Your task to perform on an android device: turn on the 24-hour format for clock Image 0: 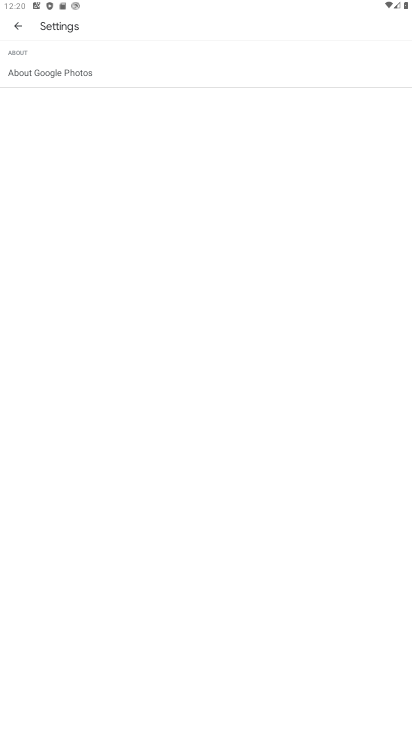
Step 0: press home button
Your task to perform on an android device: turn on the 24-hour format for clock Image 1: 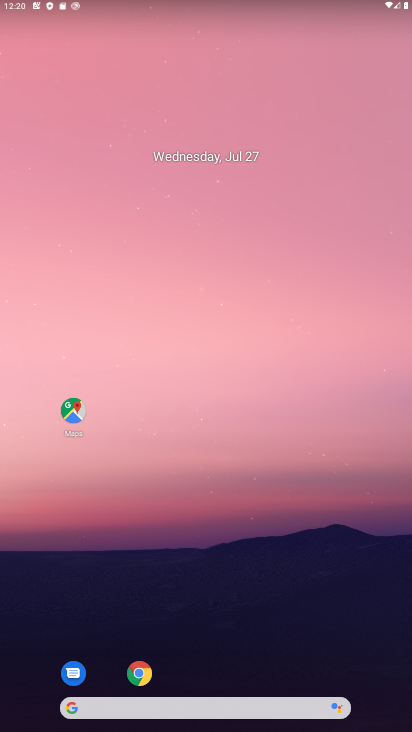
Step 1: drag from (266, 556) to (218, 13)
Your task to perform on an android device: turn on the 24-hour format for clock Image 2: 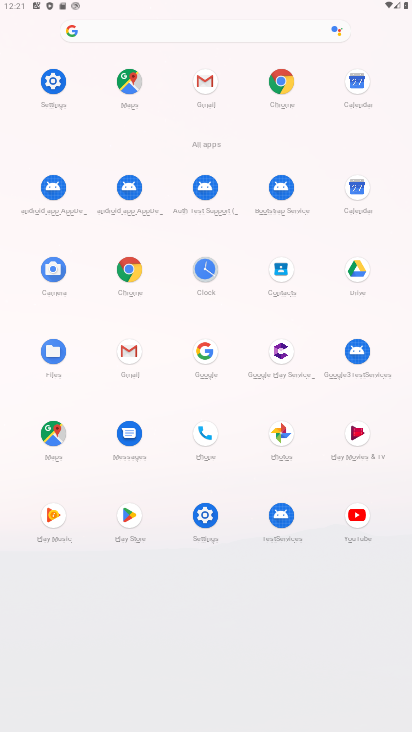
Step 2: click (207, 268)
Your task to perform on an android device: turn on the 24-hour format for clock Image 3: 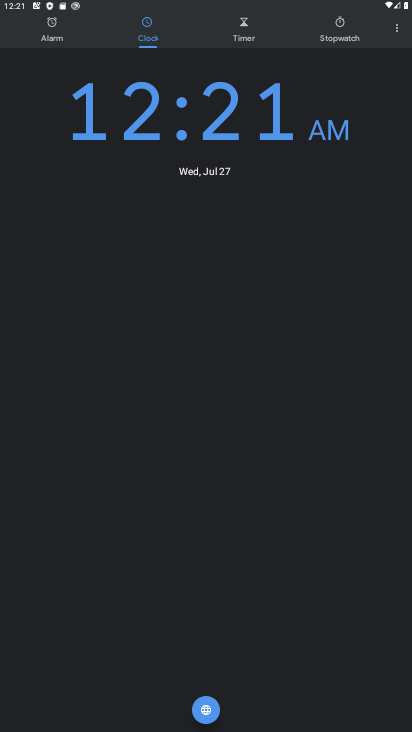
Step 3: press home button
Your task to perform on an android device: turn on the 24-hour format for clock Image 4: 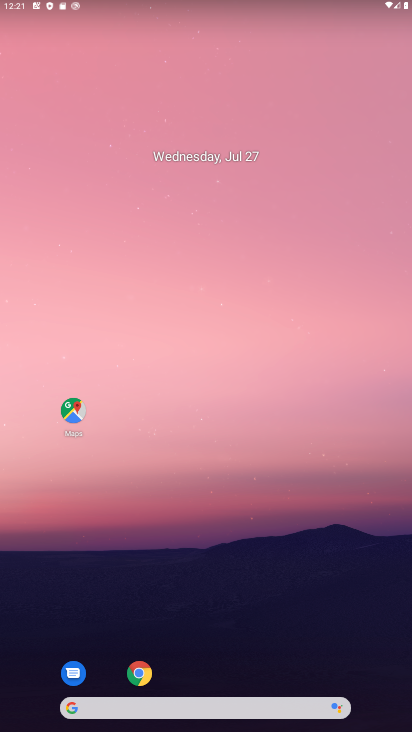
Step 4: drag from (280, 430) to (270, 23)
Your task to perform on an android device: turn on the 24-hour format for clock Image 5: 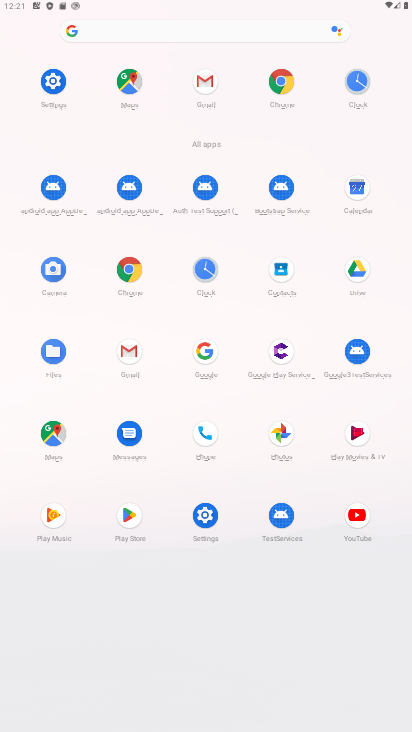
Step 5: click (220, 262)
Your task to perform on an android device: turn on the 24-hour format for clock Image 6: 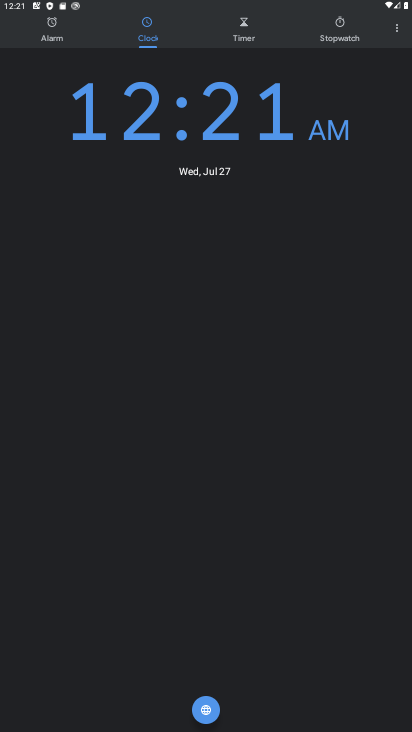
Step 6: click (401, 21)
Your task to perform on an android device: turn on the 24-hour format for clock Image 7: 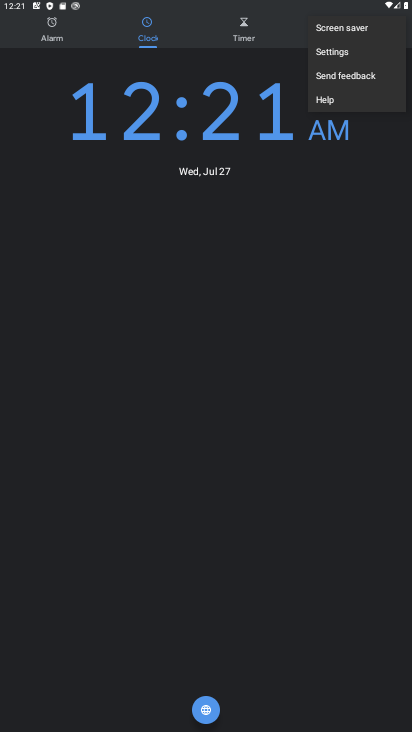
Step 7: click (328, 46)
Your task to perform on an android device: turn on the 24-hour format for clock Image 8: 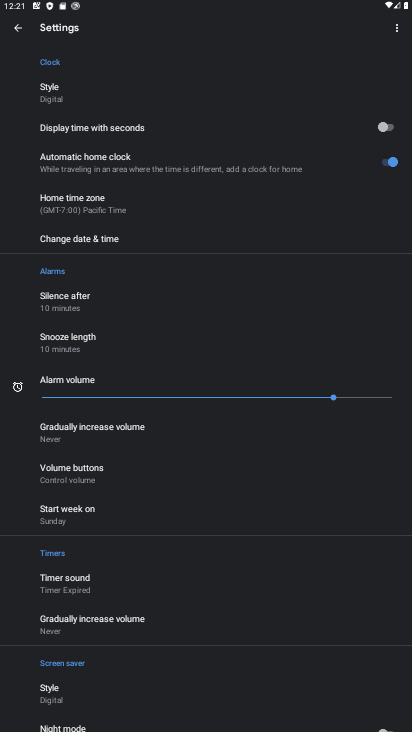
Step 8: click (89, 240)
Your task to perform on an android device: turn on the 24-hour format for clock Image 9: 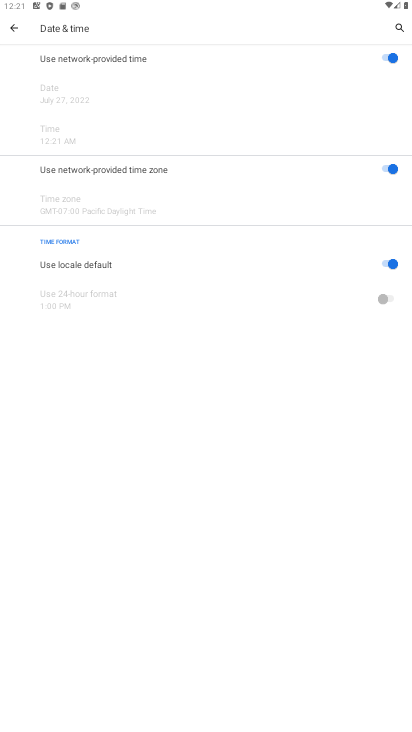
Step 9: click (390, 246)
Your task to perform on an android device: turn on the 24-hour format for clock Image 10: 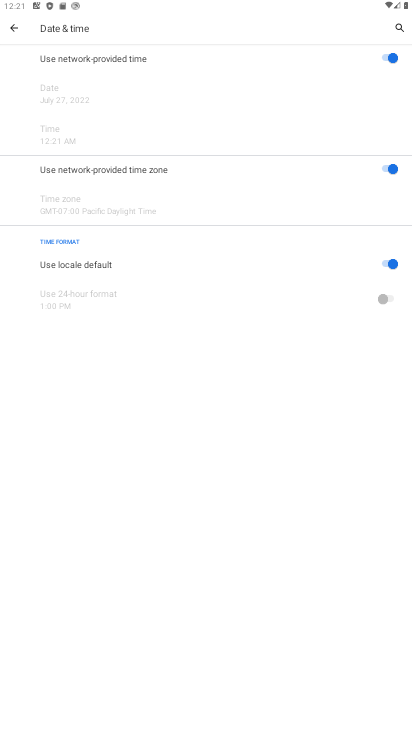
Step 10: click (392, 255)
Your task to perform on an android device: turn on the 24-hour format for clock Image 11: 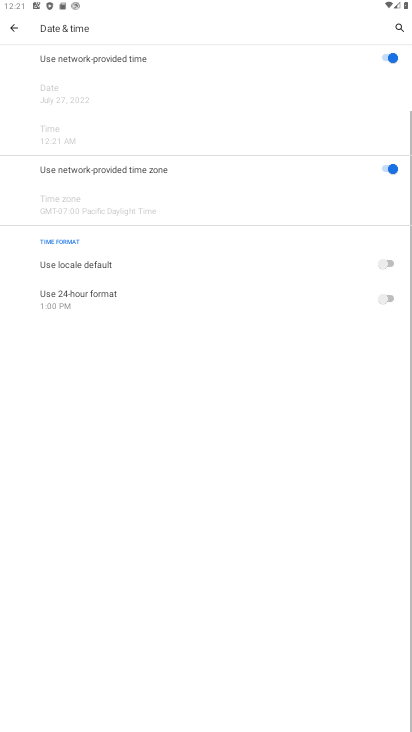
Step 11: click (386, 293)
Your task to perform on an android device: turn on the 24-hour format for clock Image 12: 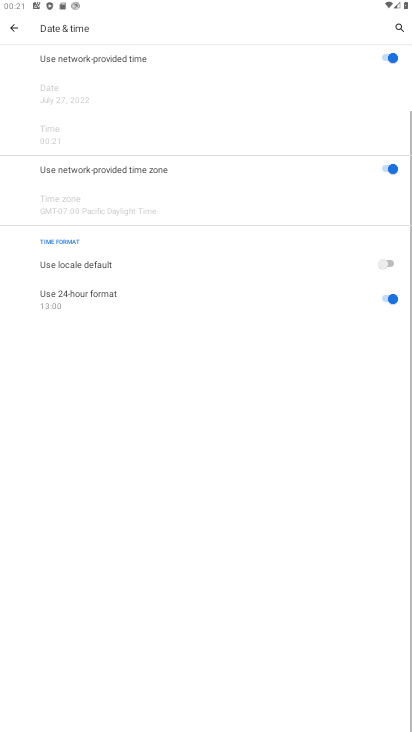
Step 12: task complete